Your task to perform on an android device: Go to notification settings Image 0: 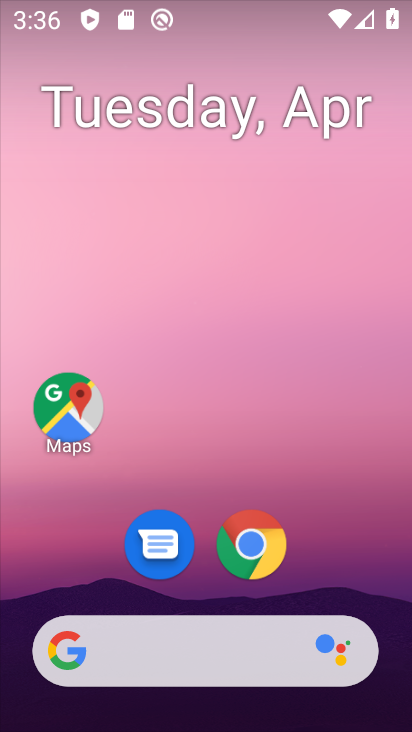
Step 0: drag from (322, 593) to (361, 162)
Your task to perform on an android device: Go to notification settings Image 1: 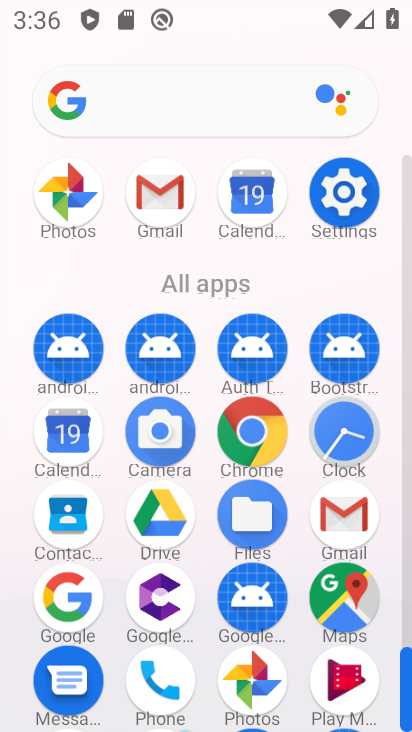
Step 1: click (352, 219)
Your task to perform on an android device: Go to notification settings Image 2: 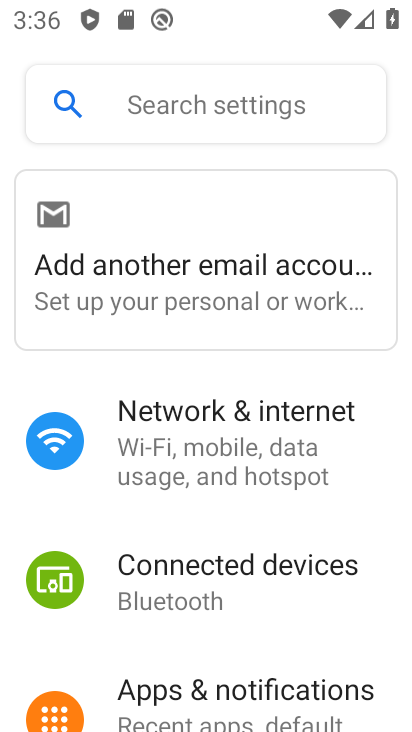
Step 2: click (268, 695)
Your task to perform on an android device: Go to notification settings Image 3: 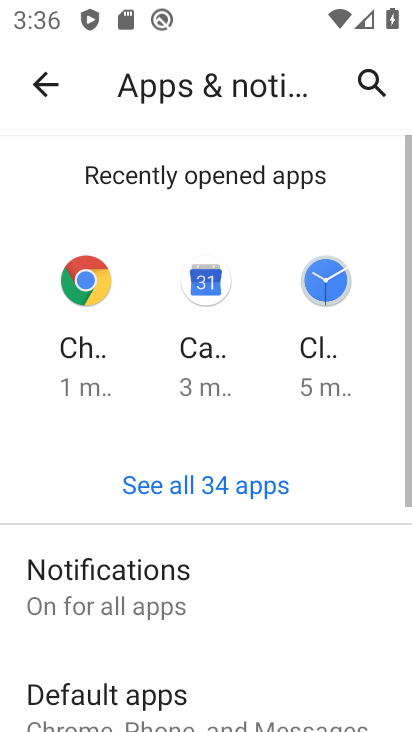
Step 3: click (144, 577)
Your task to perform on an android device: Go to notification settings Image 4: 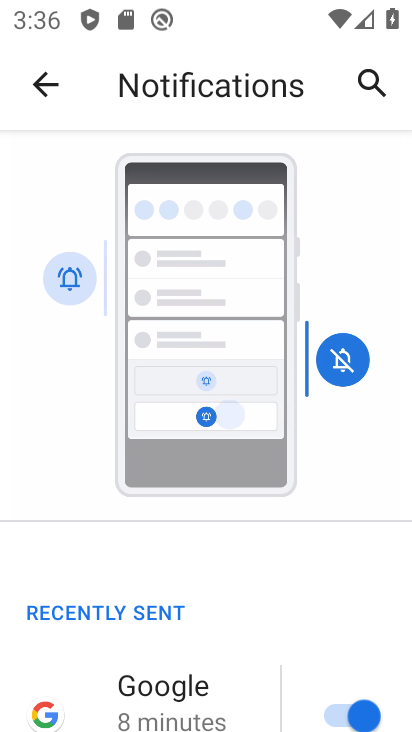
Step 4: task complete